Your task to perform on an android device: clear history in the chrome app Image 0: 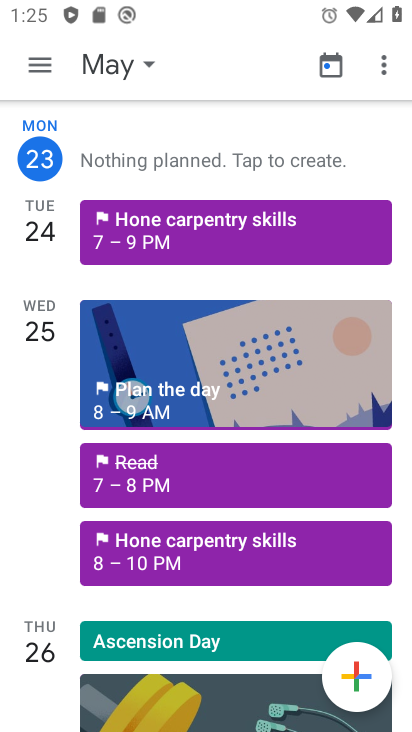
Step 0: press home button
Your task to perform on an android device: clear history in the chrome app Image 1: 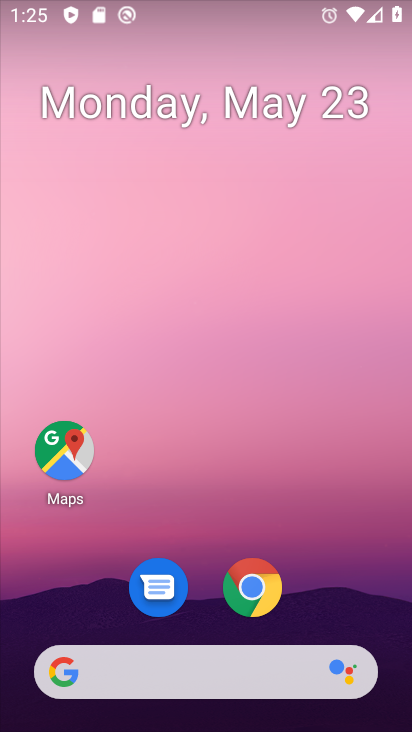
Step 1: click (269, 580)
Your task to perform on an android device: clear history in the chrome app Image 2: 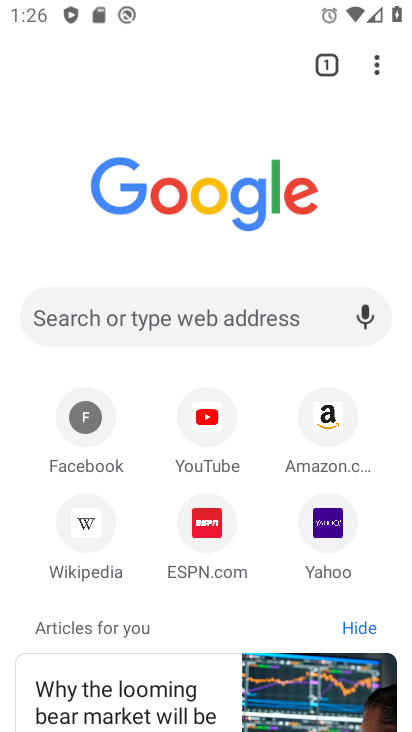
Step 2: task complete